Your task to perform on an android device: show emergency info Image 0: 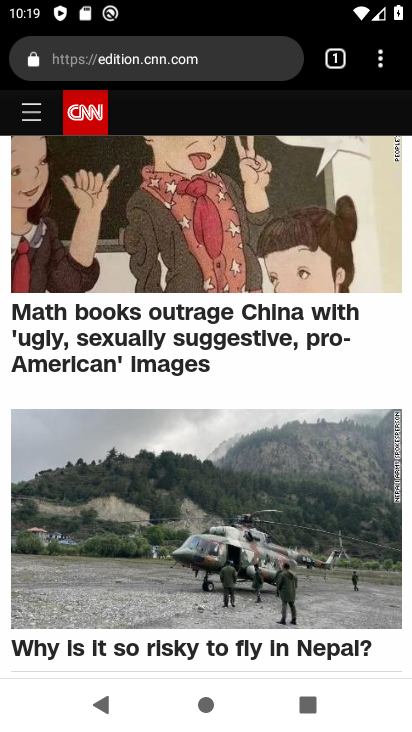
Step 0: press home button
Your task to perform on an android device: show emergency info Image 1: 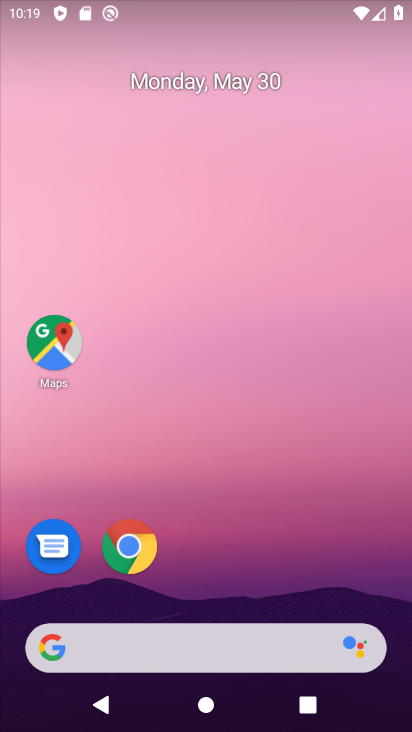
Step 1: drag from (209, 597) to (221, 30)
Your task to perform on an android device: show emergency info Image 2: 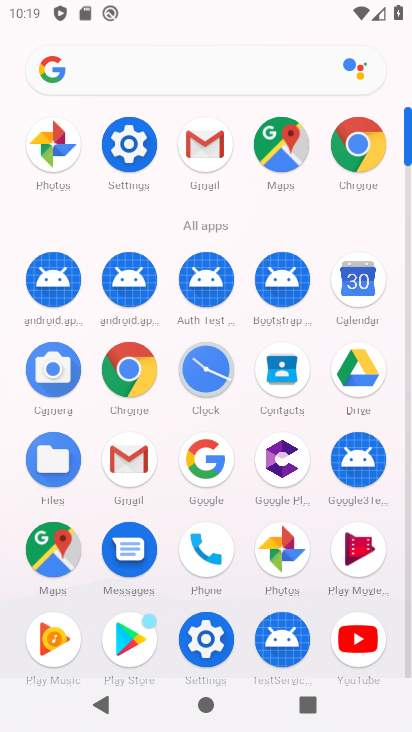
Step 2: click (125, 135)
Your task to perform on an android device: show emergency info Image 3: 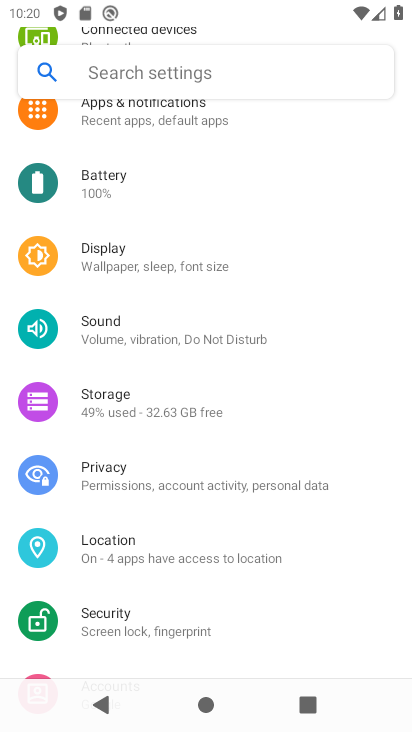
Step 3: drag from (163, 634) to (242, 182)
Your task to perform on an android device: show emergency info Image 4: 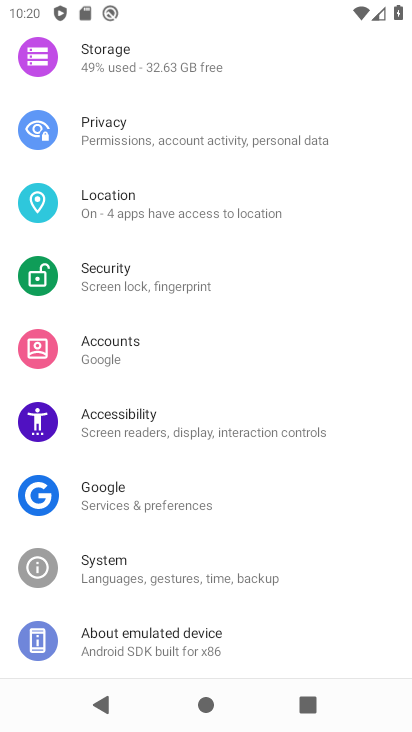
Step 4: drag from (195, 644) to (195, 37)
Your task to perform on an android device: show emergency info Image 5: 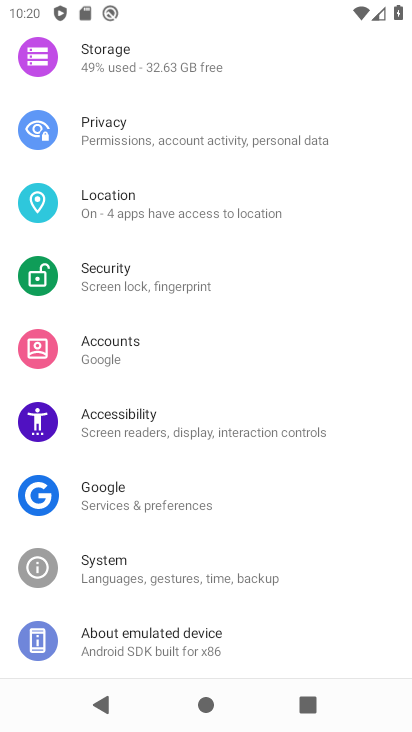
Step 5: click (234, 647)
Your task to perform on an android device: show emergency info Image 6: 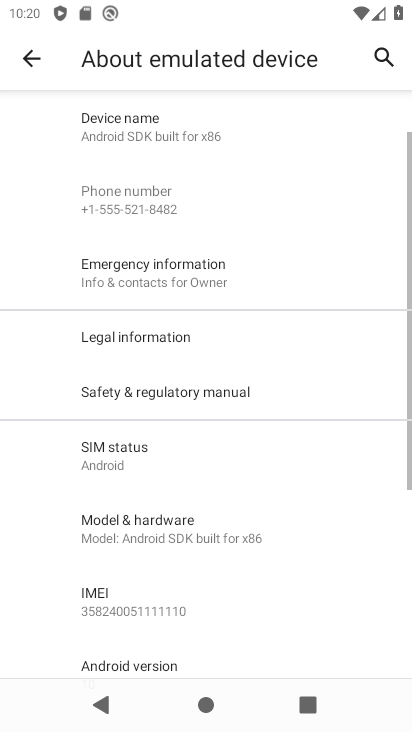
Step 6: click (243, 269)
Your task to perform on an android device: show emergency info Image 7: 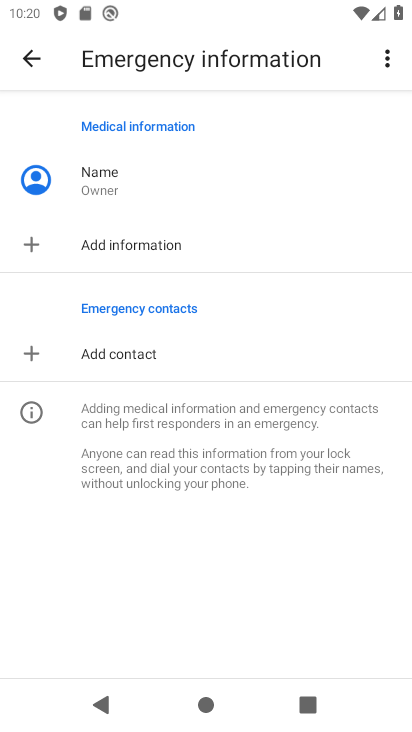
Step 7: task complete